Your task to perform on an android device: What's the news? Image 0: 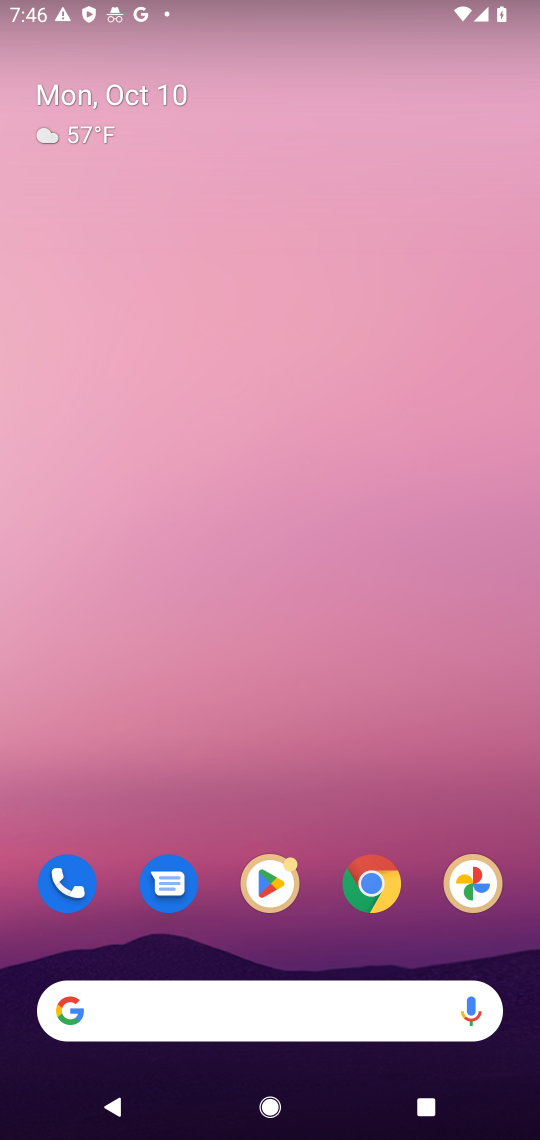
Step 0: drag from (366, 983) to (482, 45)
Your task to perform on an android device: What's the news? Image 1: 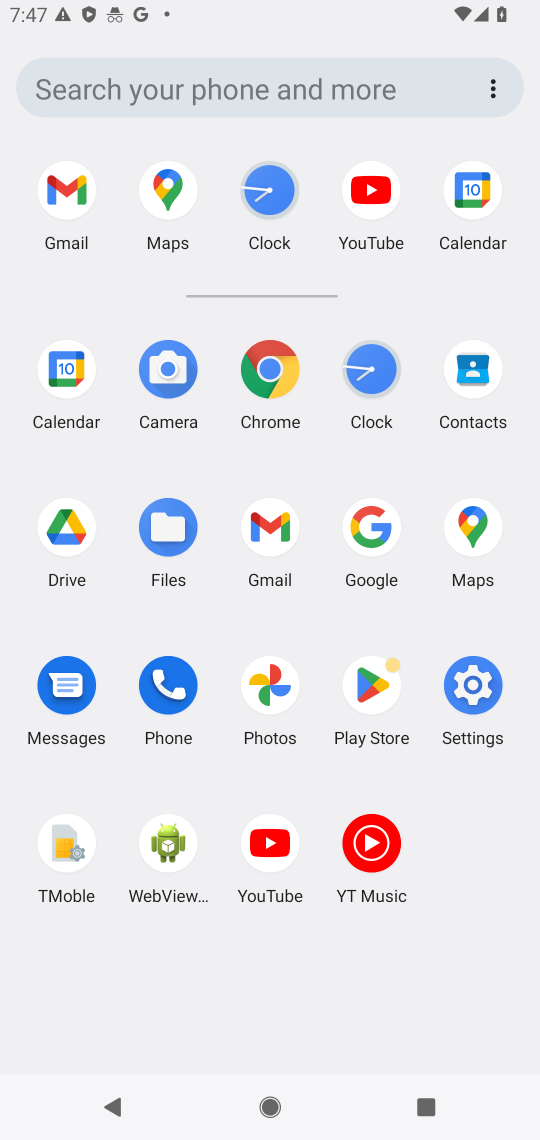
Step 1: click (387, 548)
Your task to perform on an android device: What's the news? Image 2: 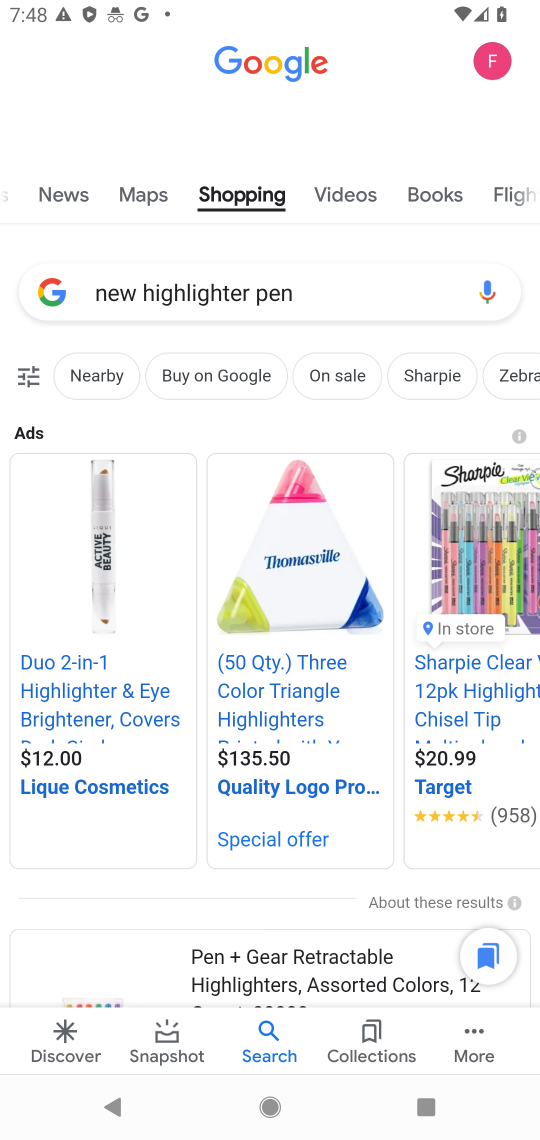
Step 2: click (378, 313)
Your task to perform on an android device: What's the news? Image 3: 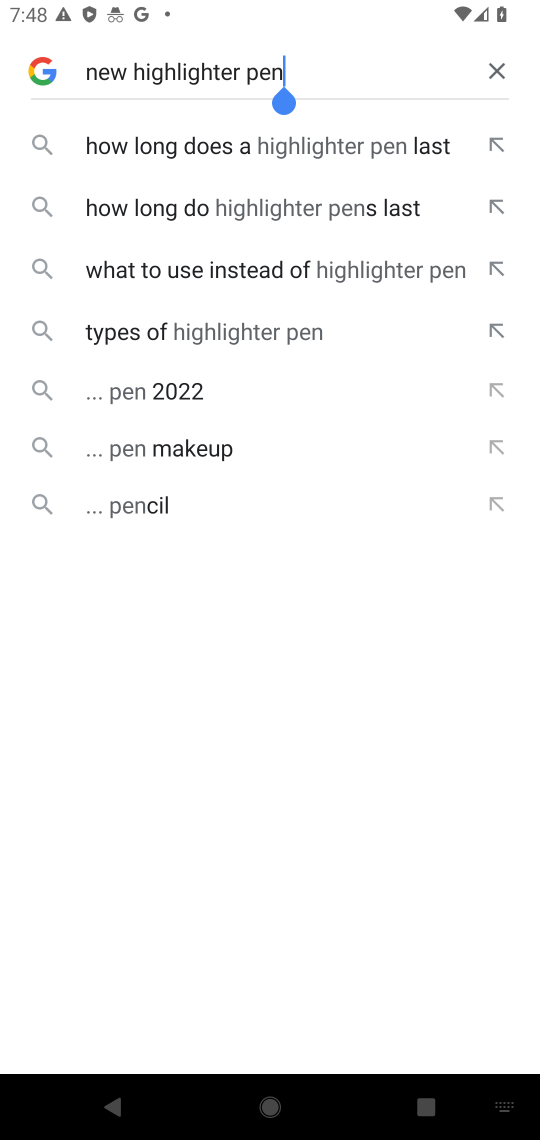
Step 3: click (497, 78)
Your task to perform on an android device: What's the news? Image 4: 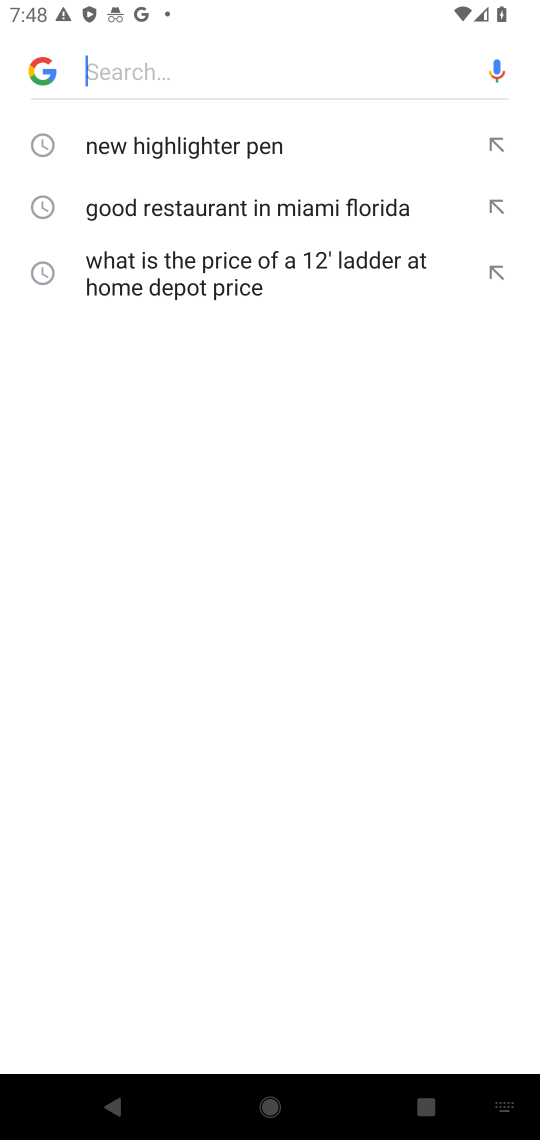
Step 4: type "What's the news?"
Your task to perform on an android device: What's the news? Image 5: 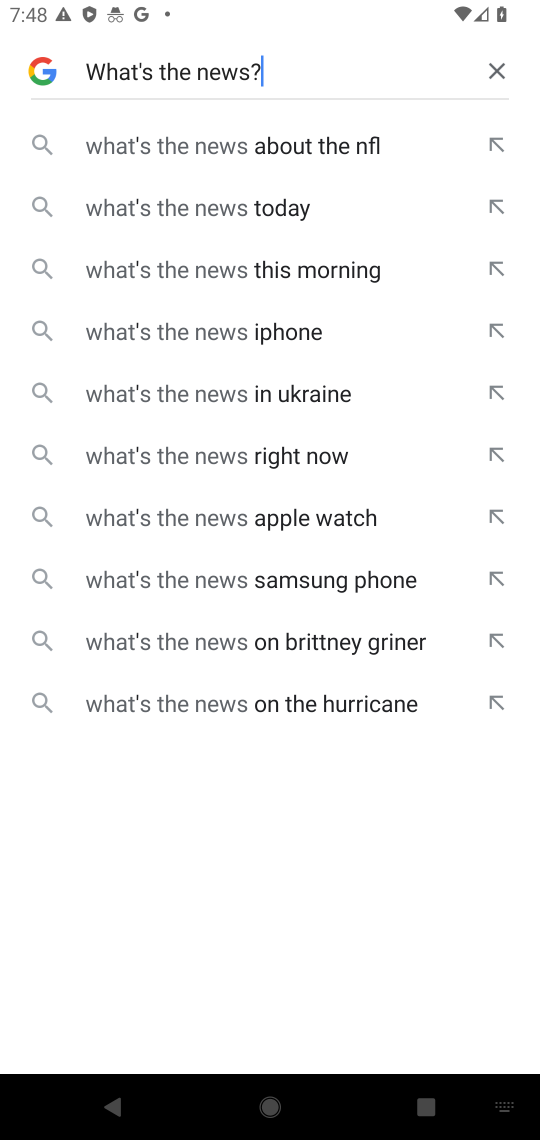
Step 5: click (225, 208)
Your task to perform on an android device: What's the news? Image 6: 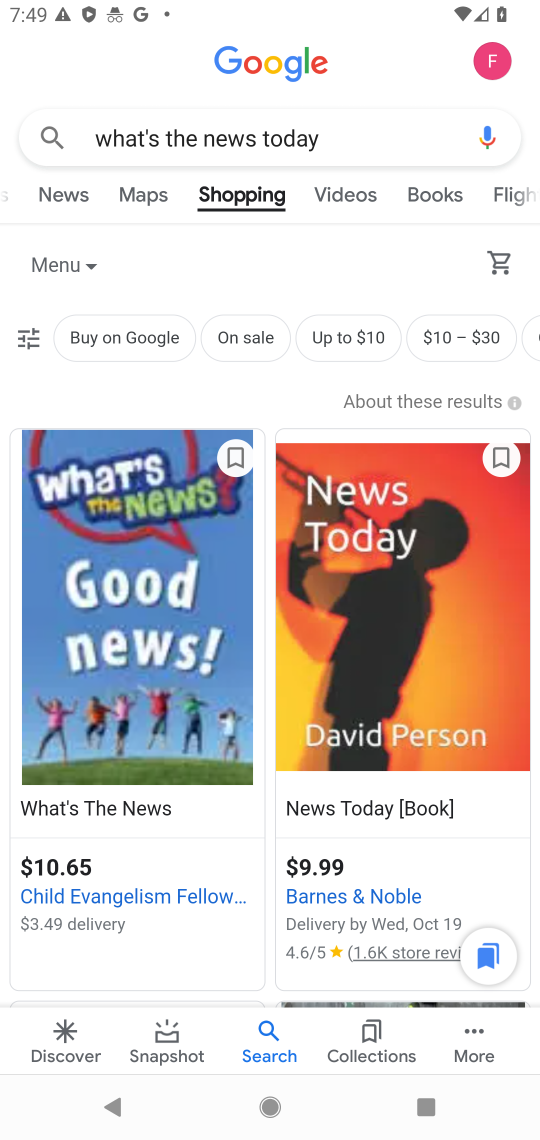
Step 6: click (82, 201)
Your task to perform on an android device: What's the news? Image 7: 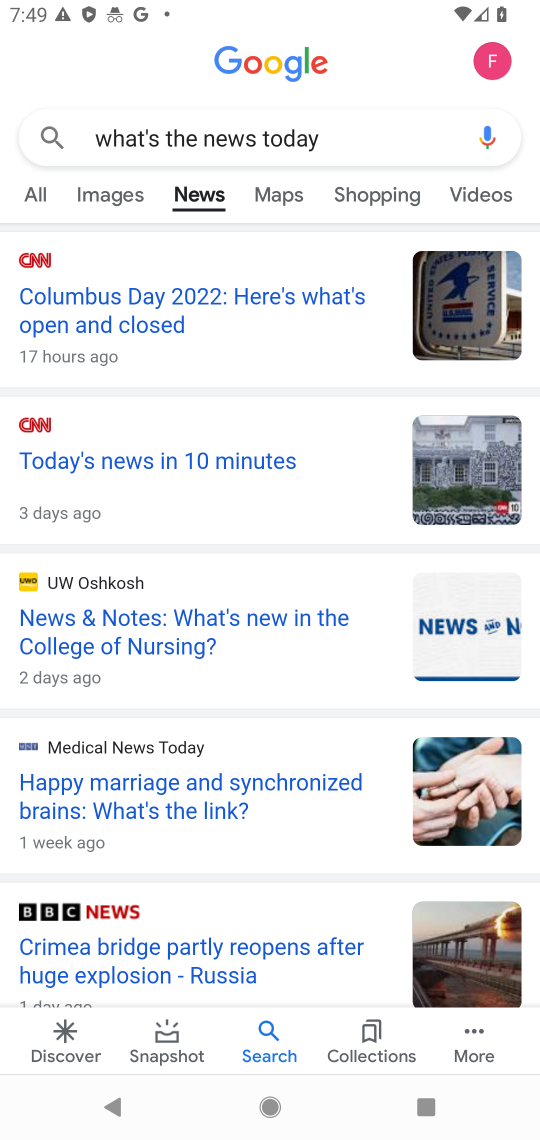
Step 7: task complete